Your task to perform on an android device: check android version Image 0: 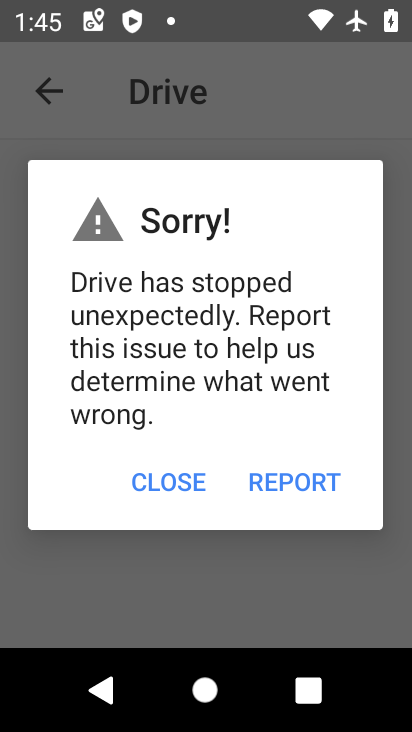
Step 0: press home button
Your task to perform on an android device: check android version Image 1: 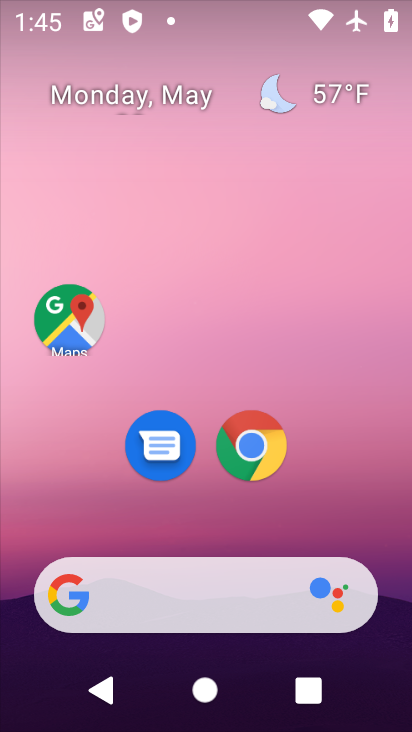
Step 1: drag from (208, 518) to (195, 38)
Your task to perform on an android device: check android version Image 2: 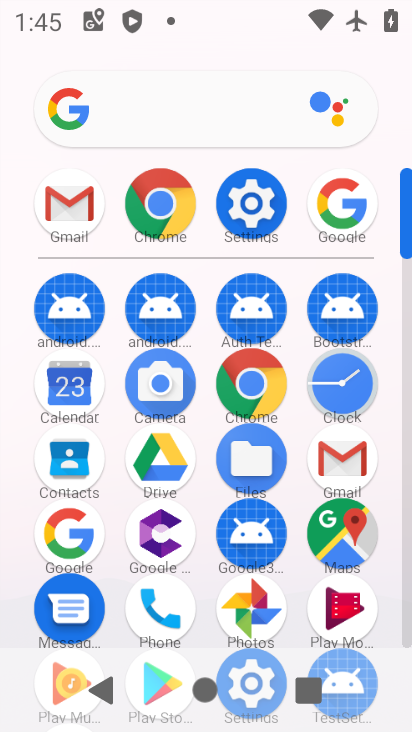
Step 2: click (258, 192)
Your task to perform on an android device: check android version Image 3: 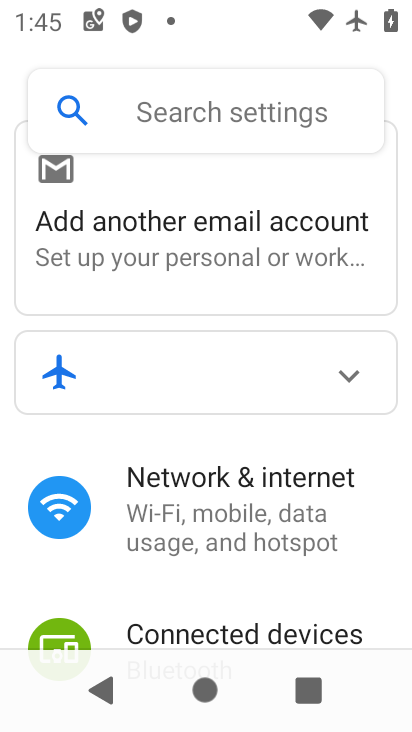
Step 3: drag from (268, 576) to (261, 26)
Your task to perform on an android device: check android version Image 4: 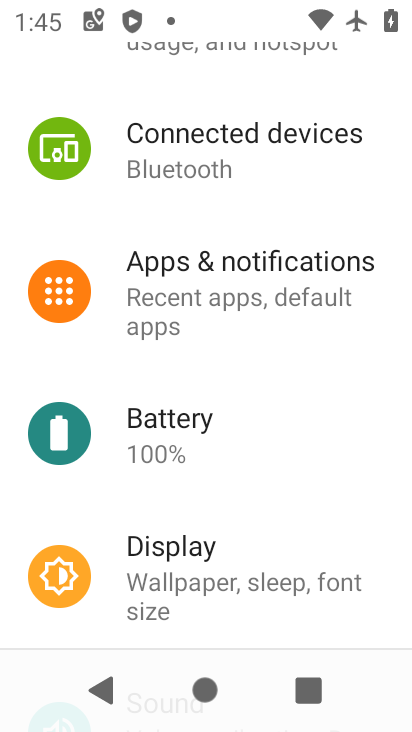
Step 4: drag from (239, 535) to (258, 56)
Your task to perform on an android device: check android version Image 5: 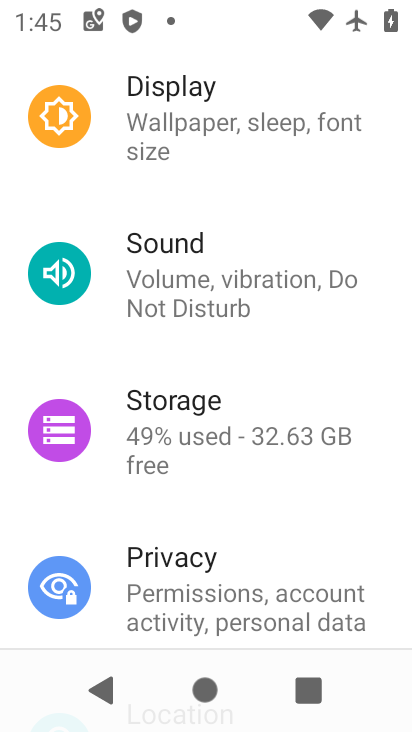
Step 5: drag from (225, 604) to (232, 113)
Your task to perform on an android device: check android version Image 6: 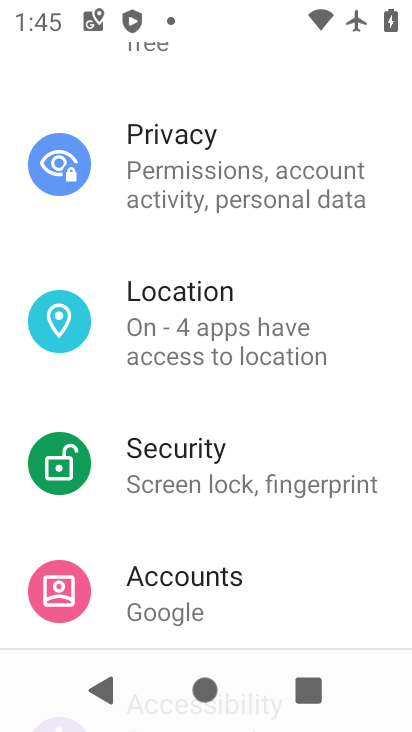
Step 6: drag from (260, 560) to (226, 34)
Your task to perform on an android device: check android version Image 7: 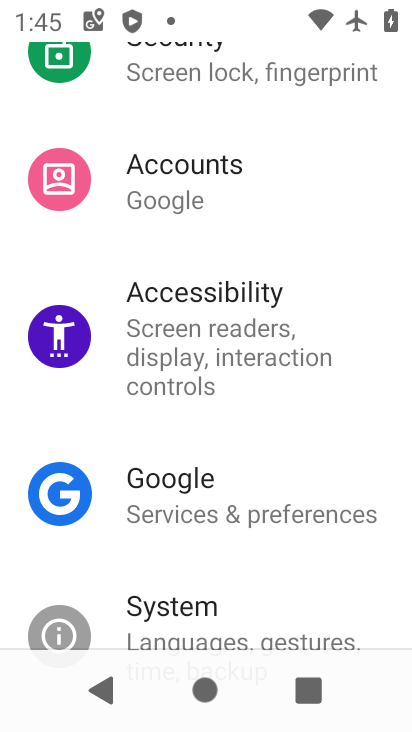
Step 7: drag from (307, 560) to (282, 167)
Your task to perform on an android device: check android version Image 8: 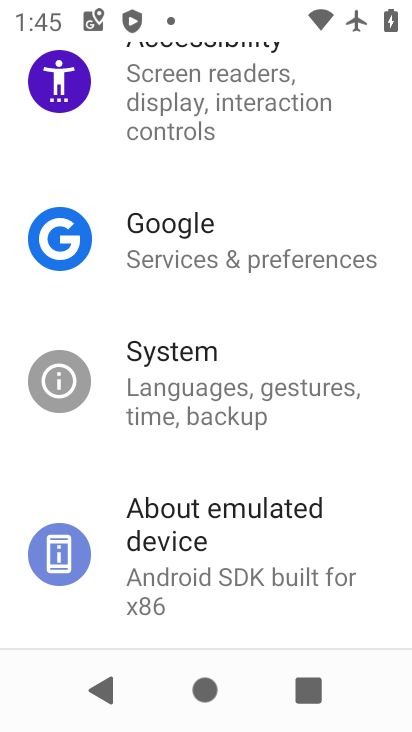
Step 8: click (267, 590)
Your task to perform on an android device: check android version Image 9: 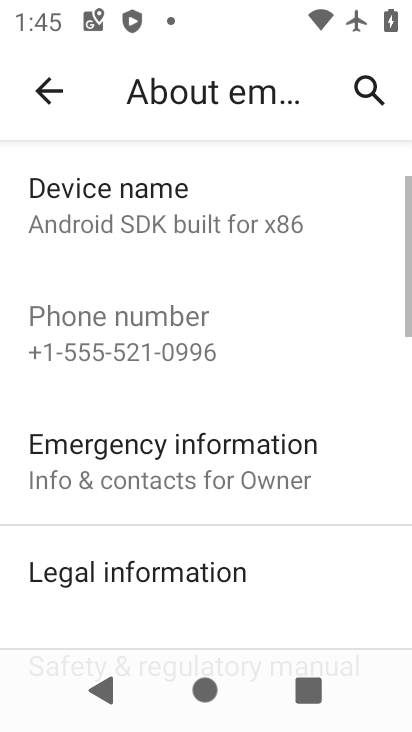
Step 9: drag from (296, 590) to (260, 211)
Your task to perform on an android device: check android version Image 10: 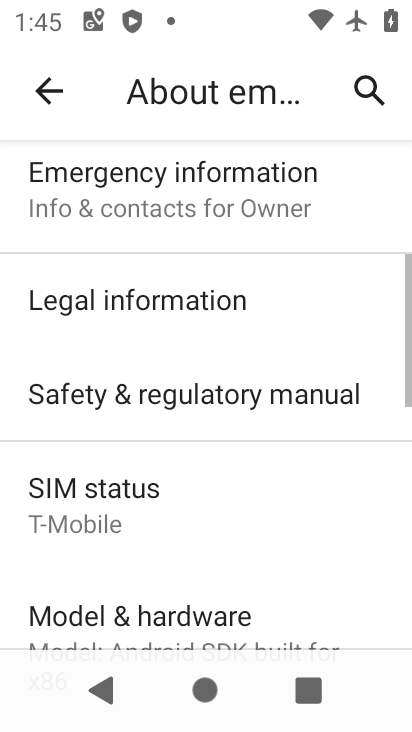
Step 10: drag from (197, 579) to (174, 203)
Your task to perform on an android device: check android version Image 11: 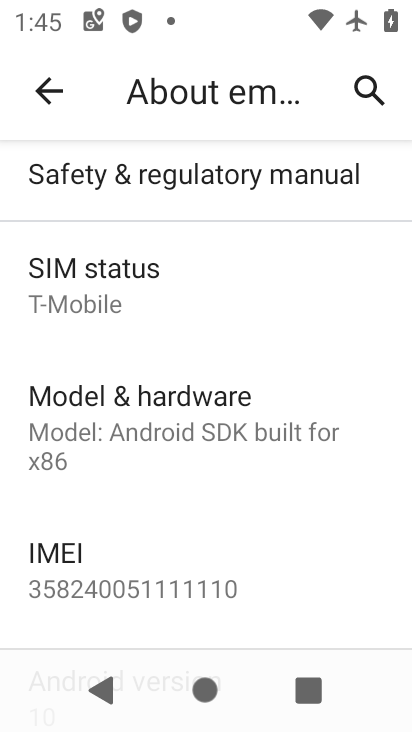
Step 11: drag from (160, 611) to (161, 216)
Your task to perform on an android device: check android version Image 12: 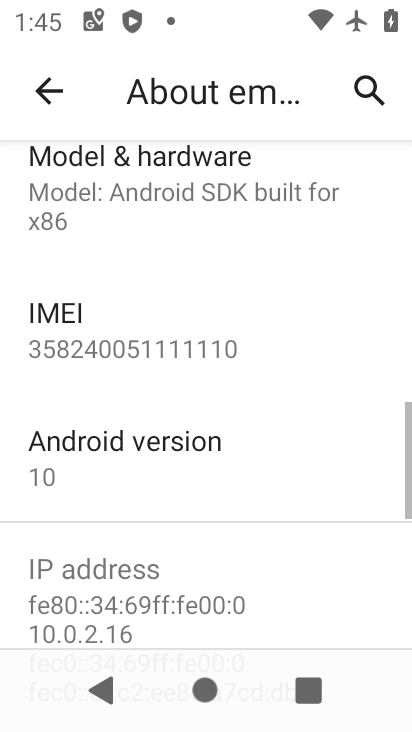
Step 12: click (112, 448)
Your task to perform on an android device: check android version Image 13: 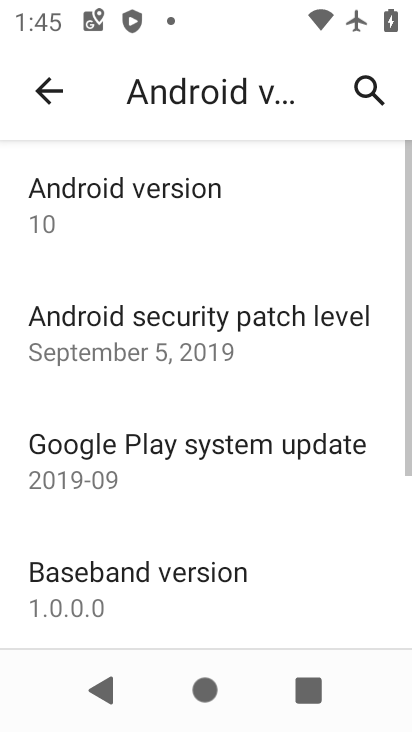
Step 13: task complete